Your task to perform on an android device: turn on the 24-hour format for clock Image 0: 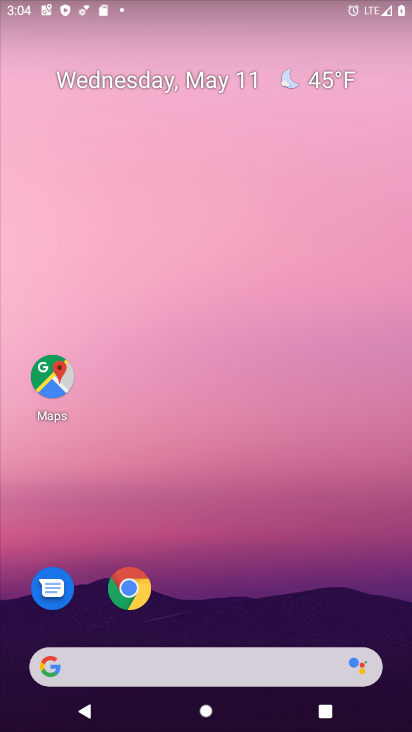
Step 0: drag from (284, 586) to (281, 250)
Your task to perform on an android device: turn on the 24-hour format for clock Image 1: 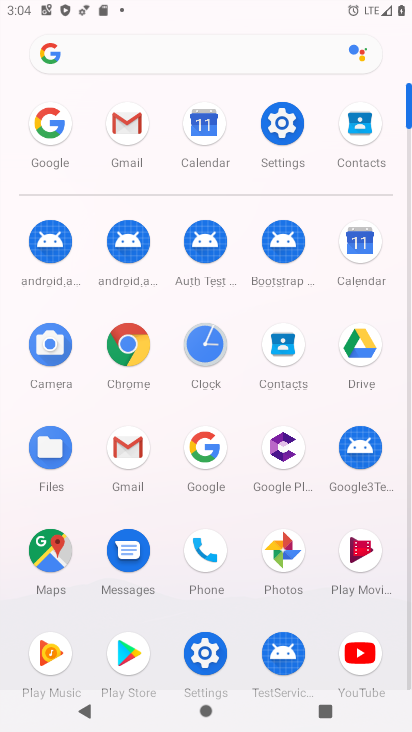
Step 1: click (211, 341)
Your task to perform on an android device: turn on the 24-hour format for clock Image 2: 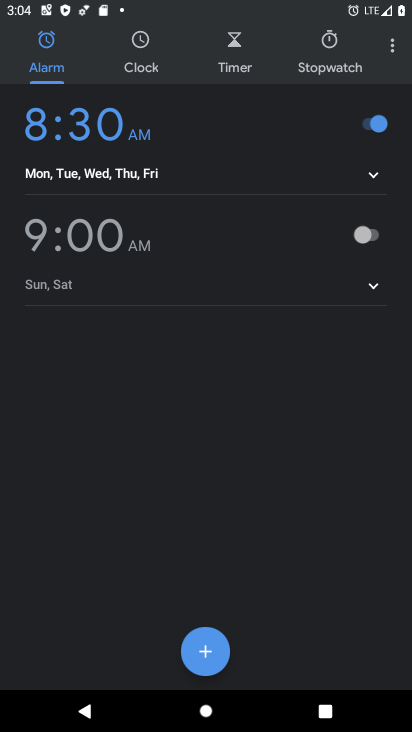
Step 2: click (393, 42)
Your task to perform on an android device: turn on the 24-hour format for clock Image 3: 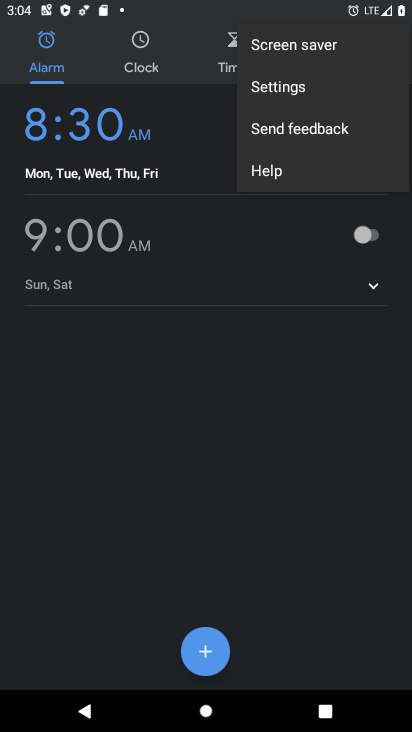
Step 3: click (279, 97)
Your task to perform on an android device: turn on the 24-hour format for clock Image 4: 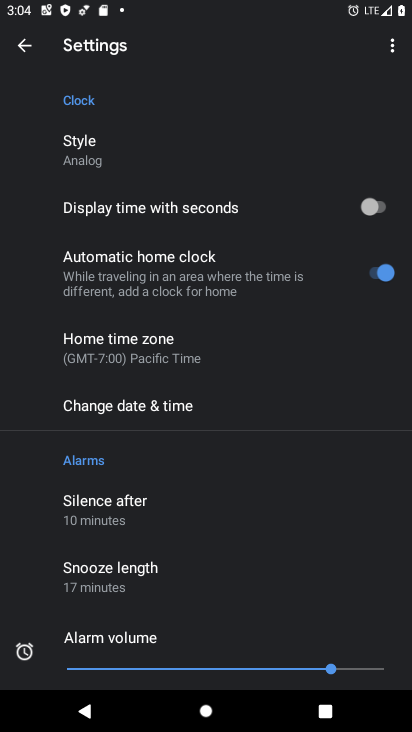
Step 4: click (166, 415)
Your task to perform on an android device: turn on the 24-hour format for clock Image 5: 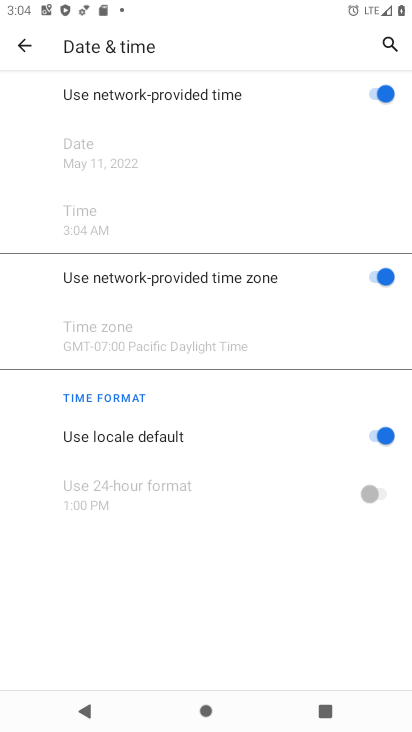
Step 5: click (374, 423)
Your task to perform on an android device: turn on the 24-hour format for clock Image 6: 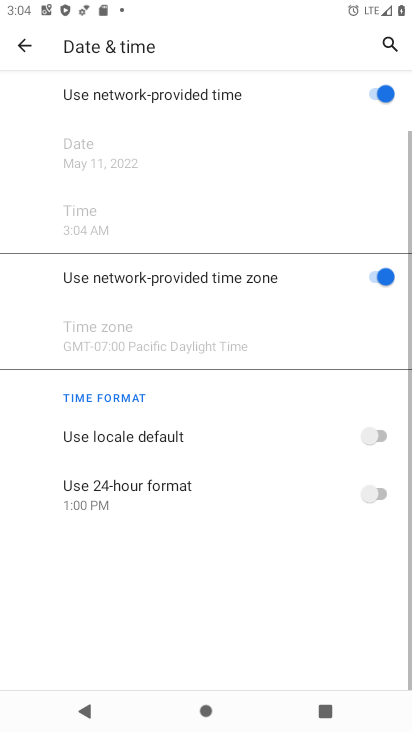
Step 6: click (383, 492)
Your task to perform on an android device: turn on the 24-hour format for clock Image 7: 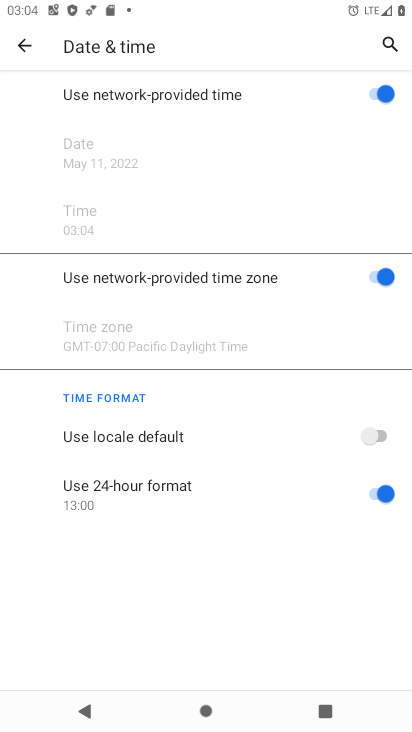
Step 7: task complete